Your task to perform on an android device: Go to Maps Image 0: 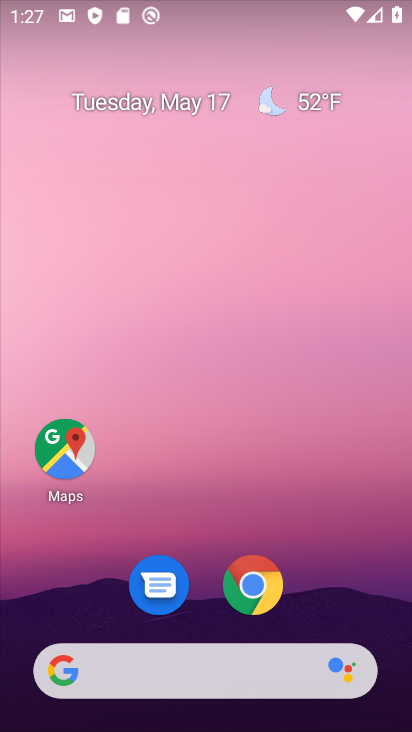
Step 0: click (66, 447)
Your task to perform on an android device: Go to Maps Image 1: 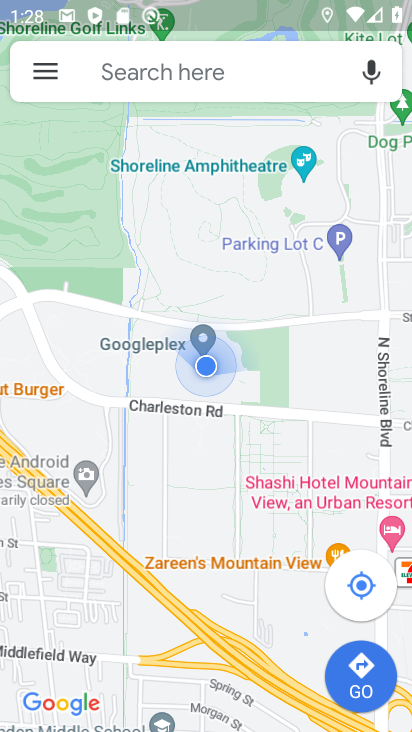
Step 1: task complete